Your task to perform on an android device: Go to sound settings Image 0: 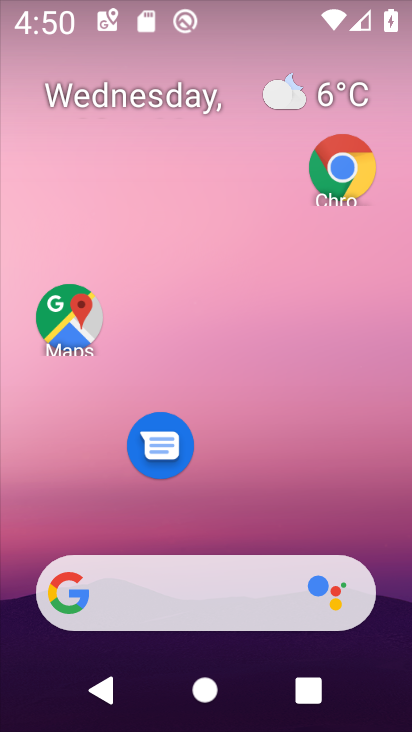
Step 0: drag from (258, 529) to (274, 32)
Your task to perform on an android device: Go to sound settings Image 1: 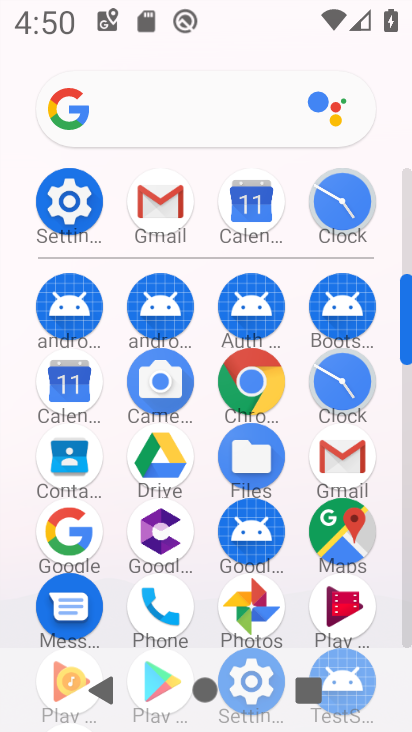
Step 1: click (72, 216)
Your task to perform on an android device: Go to sound settings Image 2: 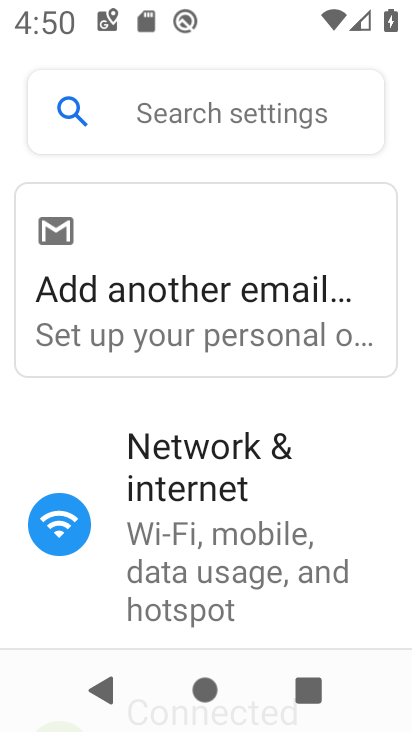
Step 2: drag from (186, 574) to (216, 185)
Your task to perform on an android device: Go to sound settings Image 3: 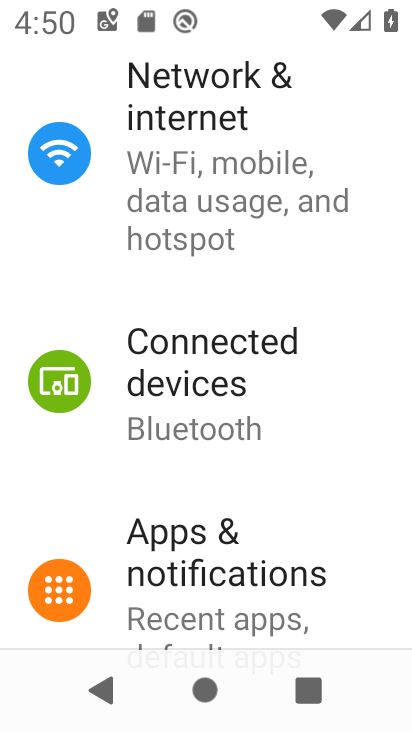
Step 3: drag from (210, 572) to (241, 288)
Your task to perform on an android device: Go to sound settings Image 4: 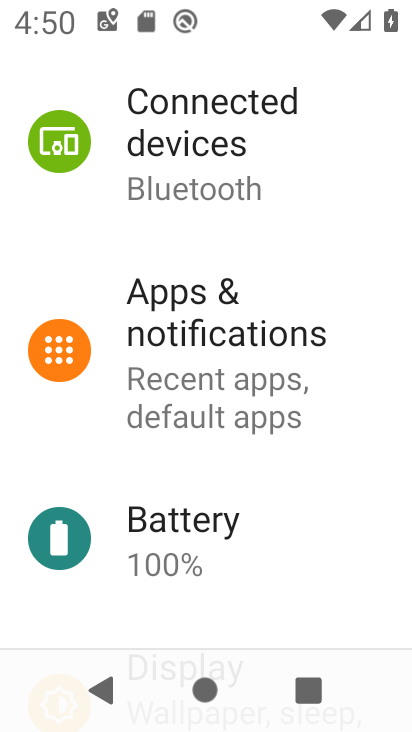
Step 4: drag from (195, 532) to (275, 119)
Your task to perform on an android device: Go to sound settings Image 5: 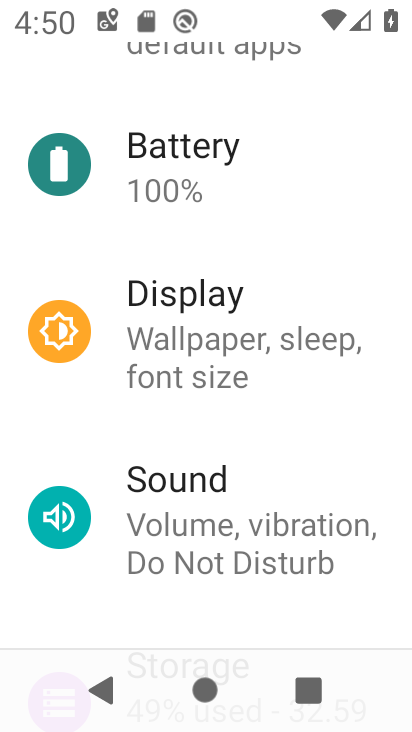
Step 5: click (205, 537)
Your task to perform on an android device: Go to sound settings Image 6: 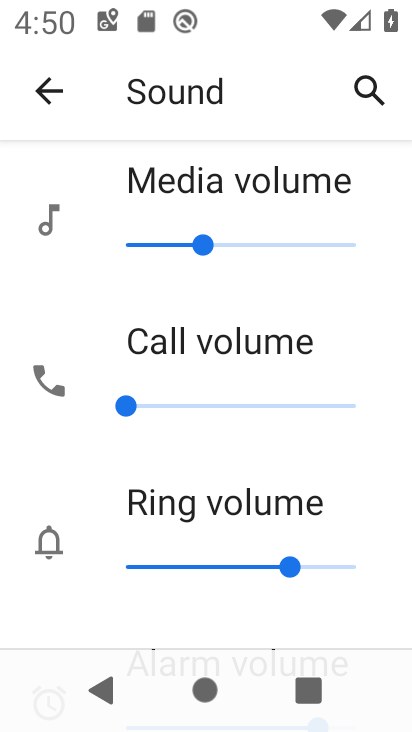
Step 6: task complete